Your task to perform on an android device: Go to wifi settings Image 0: 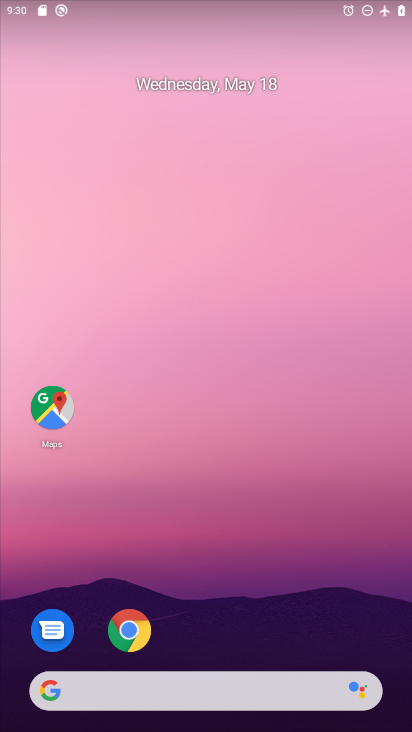
Step 0: drag from (211, 649) to (134, 117)
Your task to perform on an android device: Go to wifi settings Image 1: 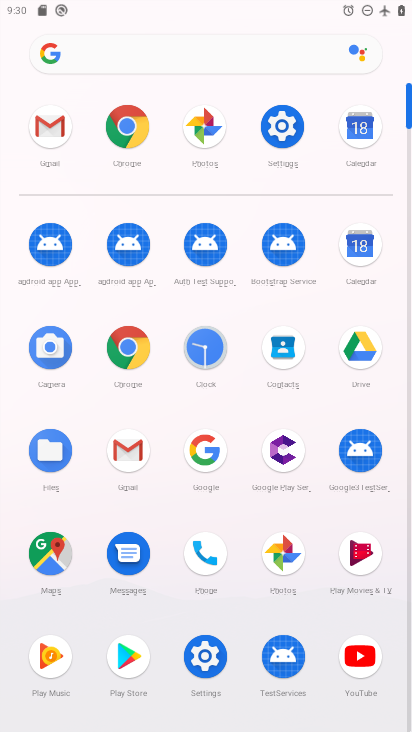
Step 1: click (286, 137)
Your task to perform on an android device: Go to wifi settings Image 2: 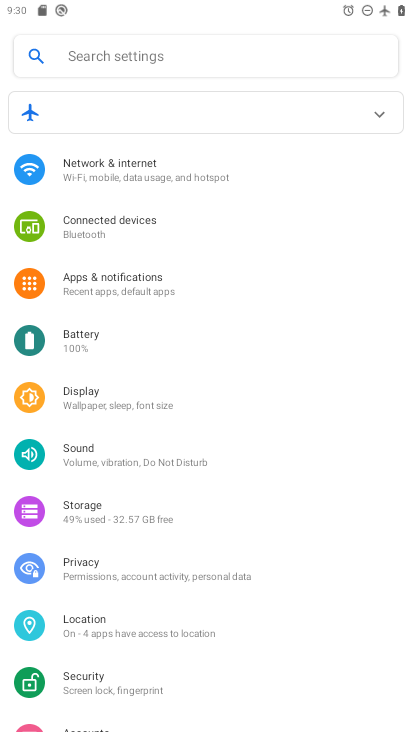
Step 2: click (17, 181)
Your task to perform on an android device: Go to wifi settings Image 3: 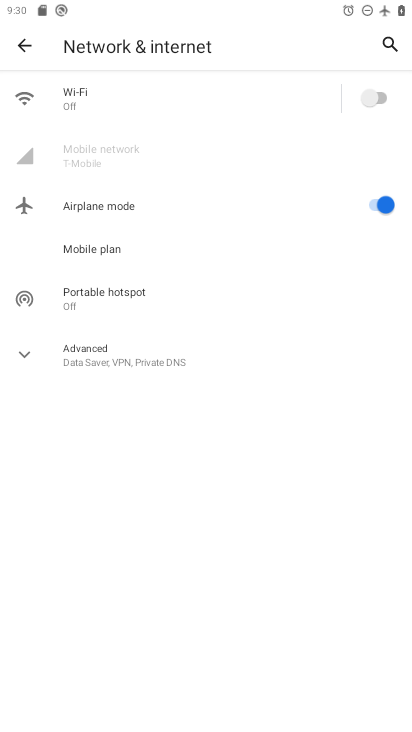
Step 3: click (128, 102)
Your task to perform on an android device: Go to wifi settings Image 4: 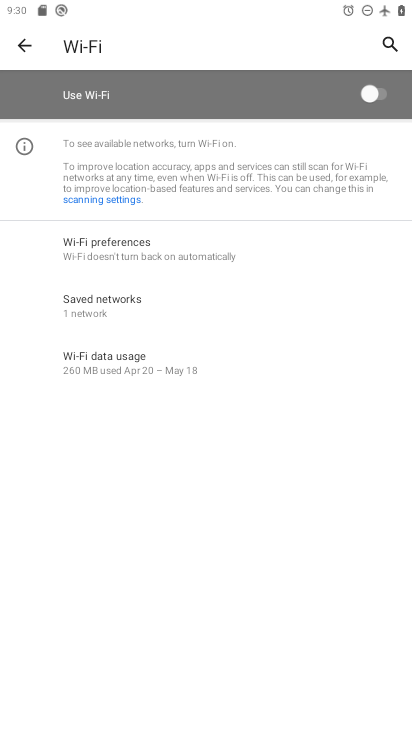
Step 4: task complete